Your task to perform on an android device: clear all cookies in the chrome app Image 0: 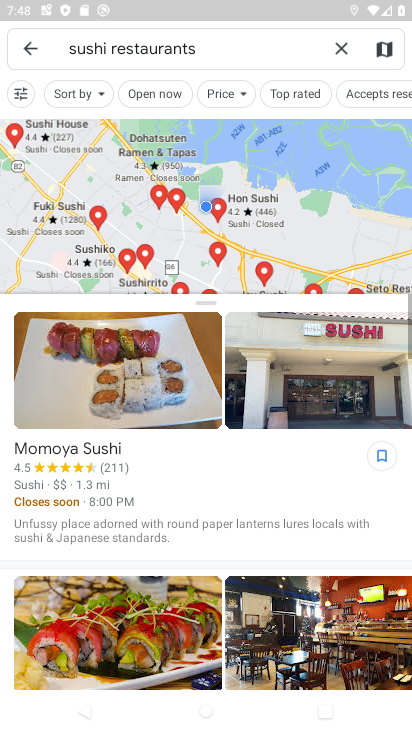
Step 0: press home button
Your task to perform on an android device: clear all cookies in the chrome app Image 1: 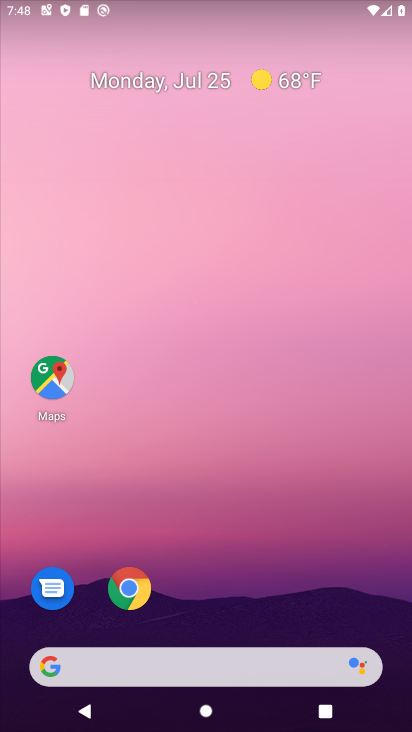
Step 1: drag from (364, 578) to (361, 96)
Your task to perform on an android device: clear all cookies in the chrome app Image 2: 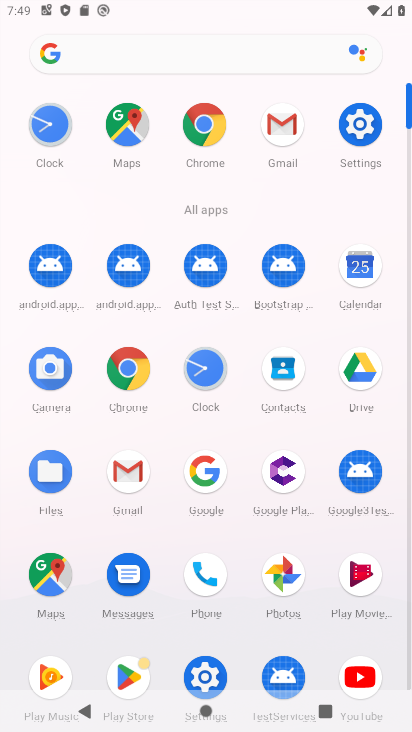
Step 2: click (129, 363)
Your task to perform on an android device: clear all cookies in the chrome app Image 3: 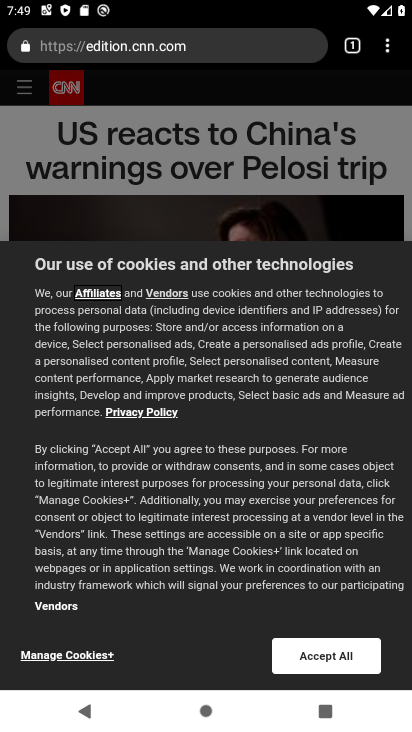
Step 3: click (387, 47)
Your task to perform on an android device: clear all cookies in the chrome app Image 4: 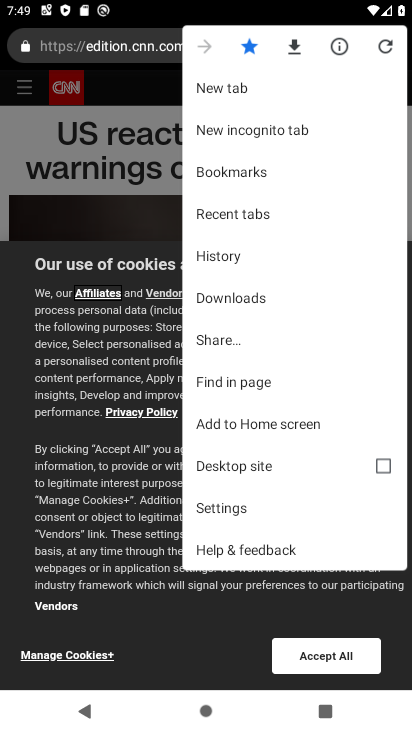
Step 4: click (235, 507)
Your task to perform on an android device: clear all cookies in the chrome app Image 5: 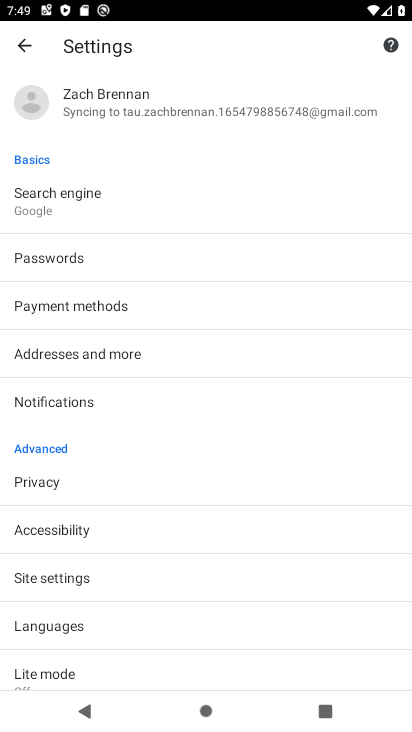
Step 5: drag from (226, 534) to (235, 487)
Your task to perform on an android device: clear all cookies in the chrome app Image 6: 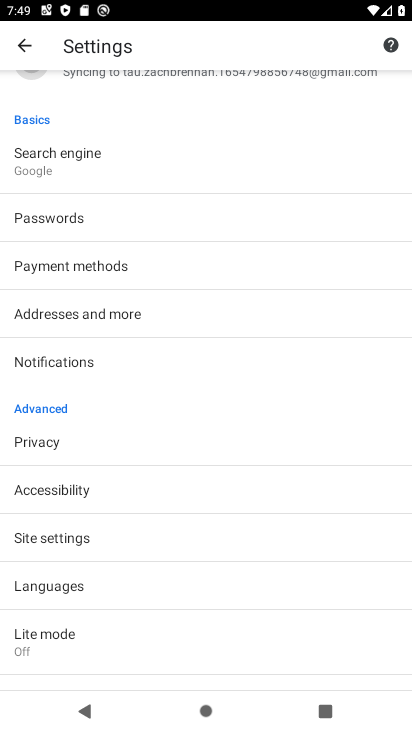
Step 6: drag from (303, 585) to (297, 485)
Your task to perform on an android device: clear all cookies in the chrome app Image 7: 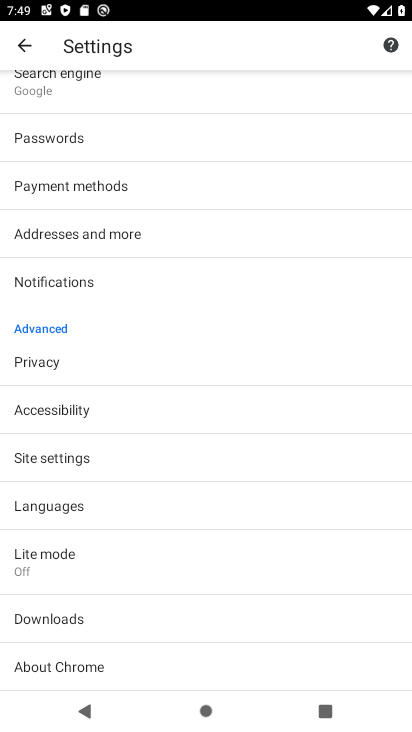
Step 7: drag from (306, 584) to (317, 448)
Your task to perform on an android device: clear all cookies in the chrome app Image 8: 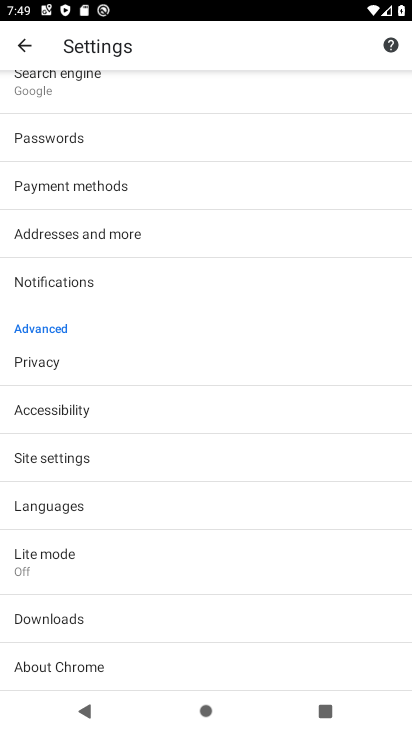
Step 8: click (291, 369)
Your task to perform on an android device: clear all cookies in the chrome app Image 9: 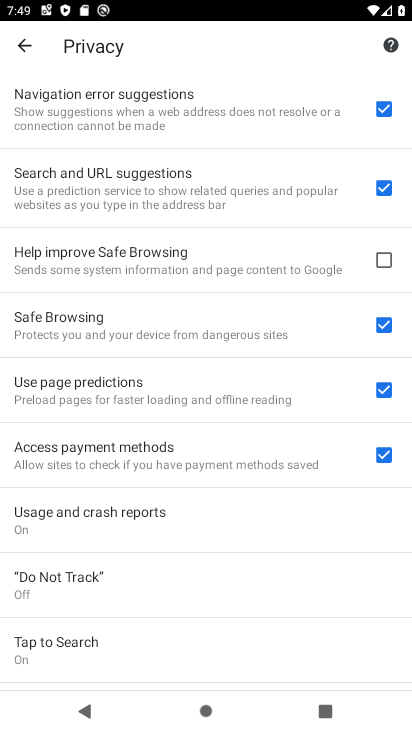
Step 9: drag from (299, 471) to (299, 403)
Your task to perform on an android device: clear all cookies in the chrome app Image 10: 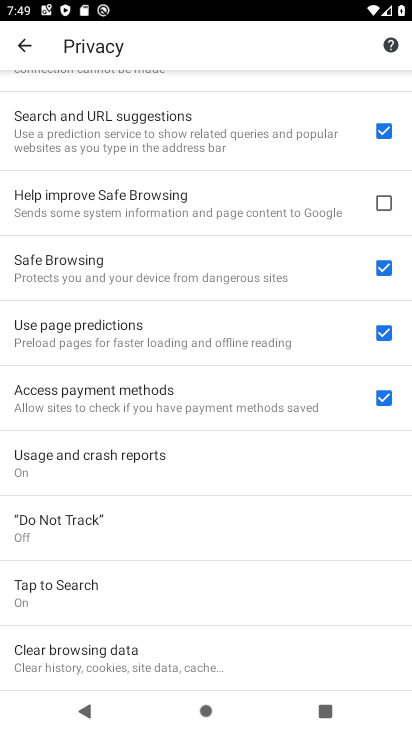
Step 10: drag from (299, 497) to (297, 409)
Your task to perform on an android device: clear all cookies in the chrome app Image 11: 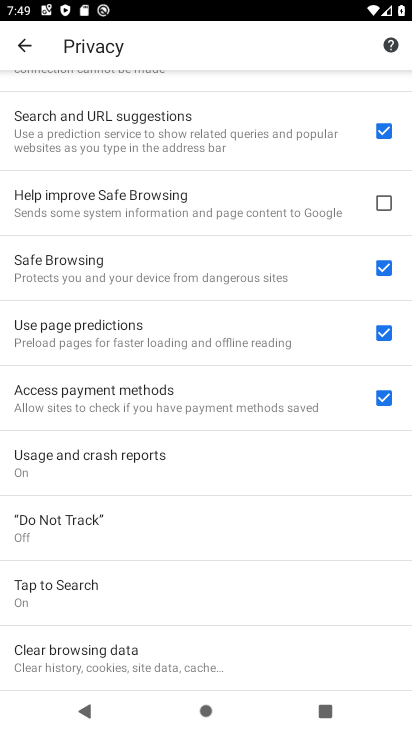
Step 11: click (301, 648)
Your task to perform on an android device: clear all cookies in the chrome app Image 12: 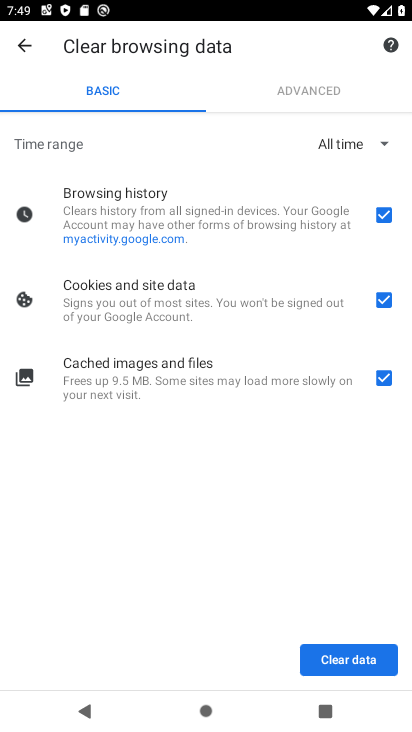
Step 12: click (345, 654)
Your task to perform on an android device: clear all cookies in the chrome app Image 13: 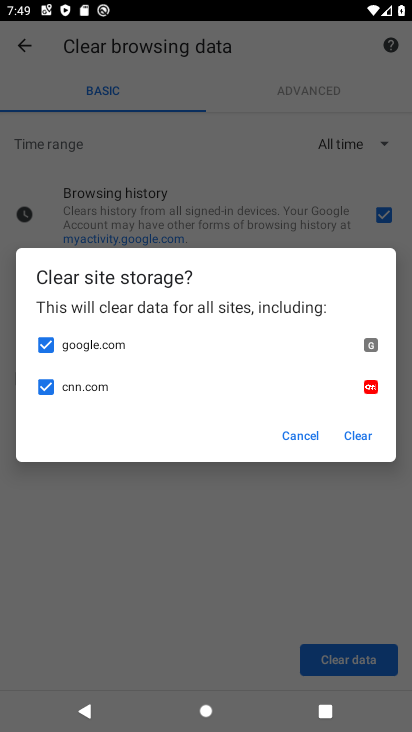
Step 13: click (360, 432)
Your task to perform on an android device: clear all cookies in the chrome app Image 14: 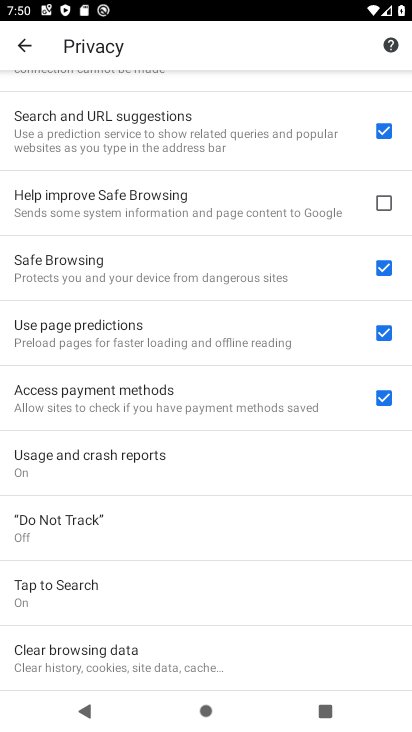
Step 14: task complete